Your task to perform on an android device: Open display settings Image 0: 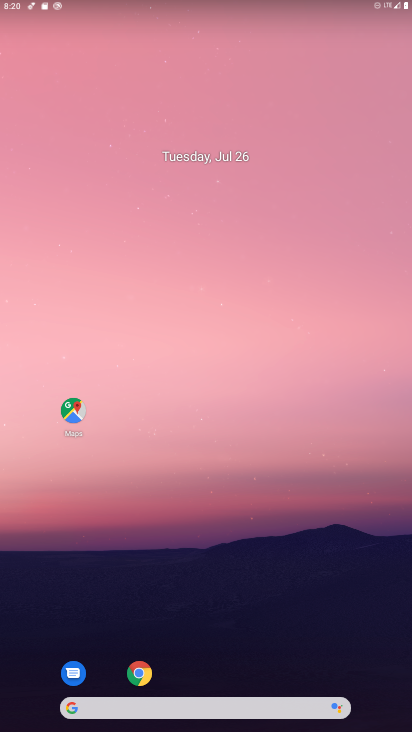
Step 0: drag from (348, 646) to (204, 70)
Your task to perform on an android device: Open display settings Image 1: 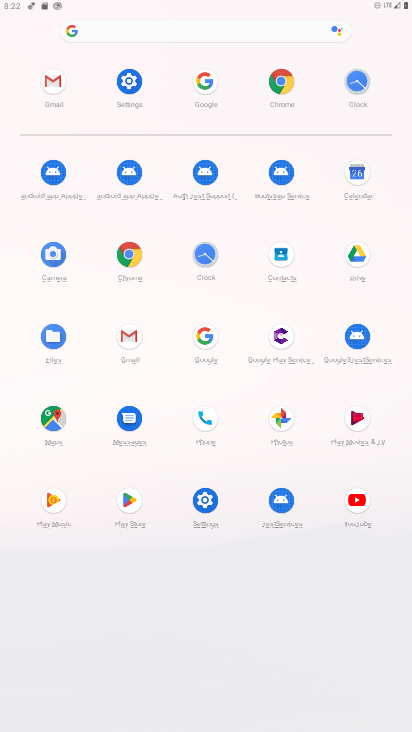
Step 1: click (206, 487)
Your task to perform on an android device: Open display settings Image 2: 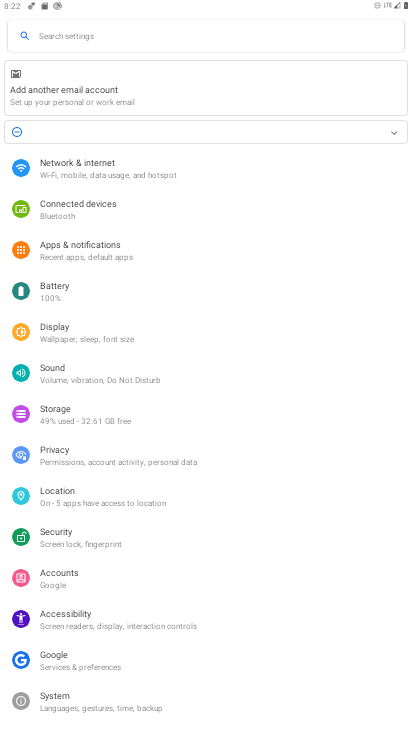
Step 2: click (68, 321)
Your task to perform on an android device: Open display settings Image 3: 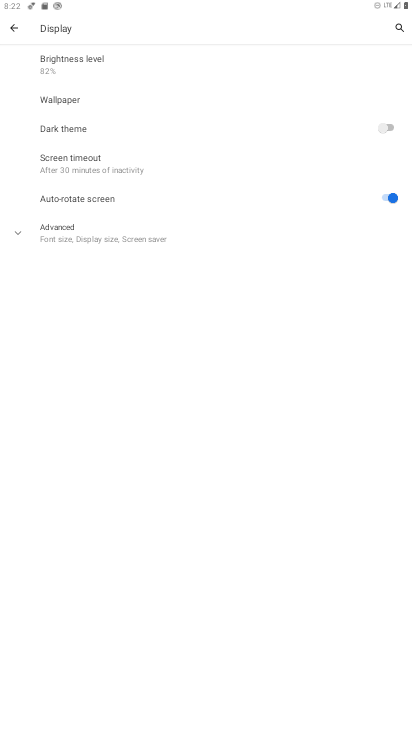
Step 3: task complete